Your task to perform on an android device: Search for sushi restaurants on Maps Image 0: 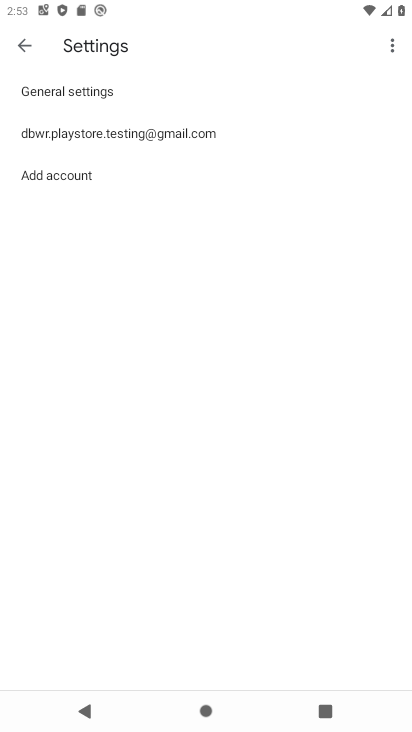
Step 0: press home button
Your task to perform on an android device: Search for sushi restaurants on Maps Image 1: 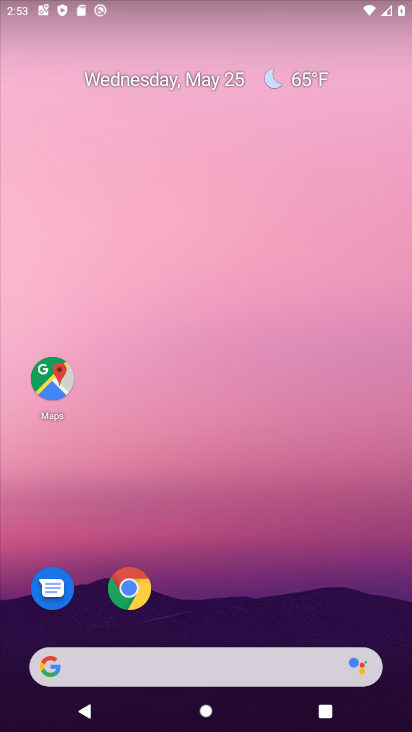
Step 1: click (55, 381)
Your task to perform on an android device: Search for sushi restaurants on Maps Image 2: 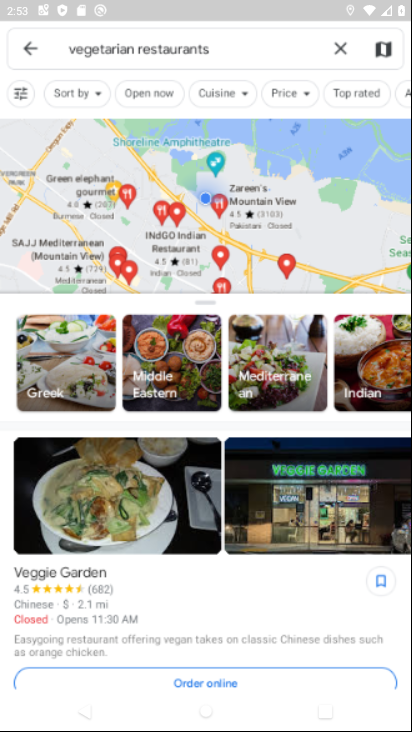
Step 2: click (344, 44)
Your task to perform on an android device: Search for sushi restaurants on Maps Image 3: 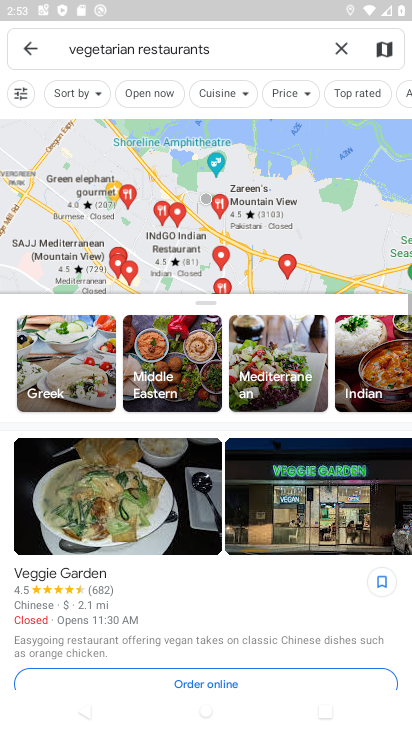
Step 3: click (345, 49)
Your task to perform on an android device: Search for sushi restaurants on Maps Image 4: 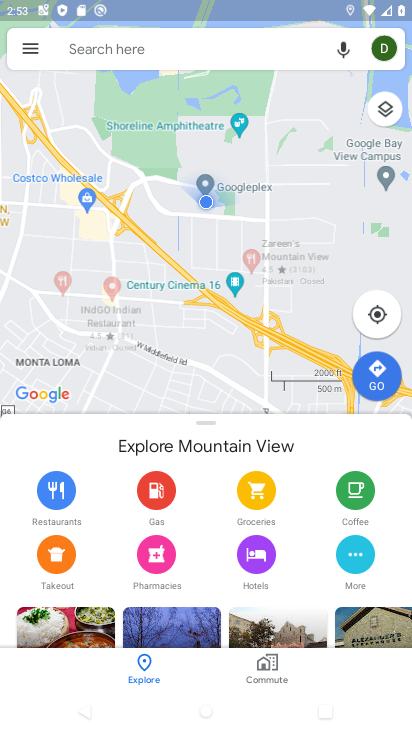
Step 4: click (344, 44)
Your task to perform on an android device: Search for sushi restaurants on Maps Image 5: 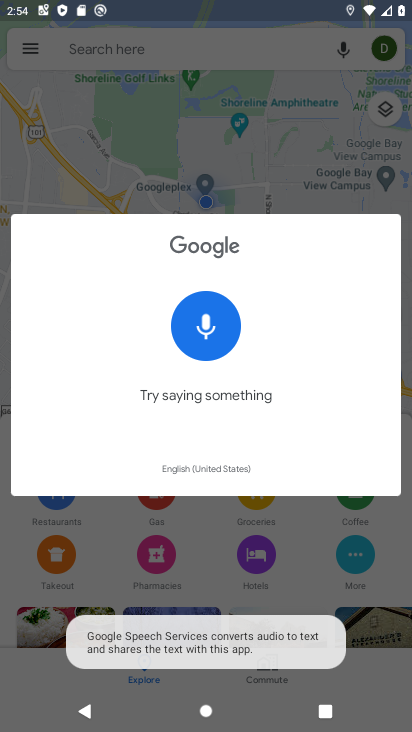
Step 5: drag from (347, 56) to (232, 56)
Your task to perform on an android device: Search for sushi restaurants on Maps Image 6: 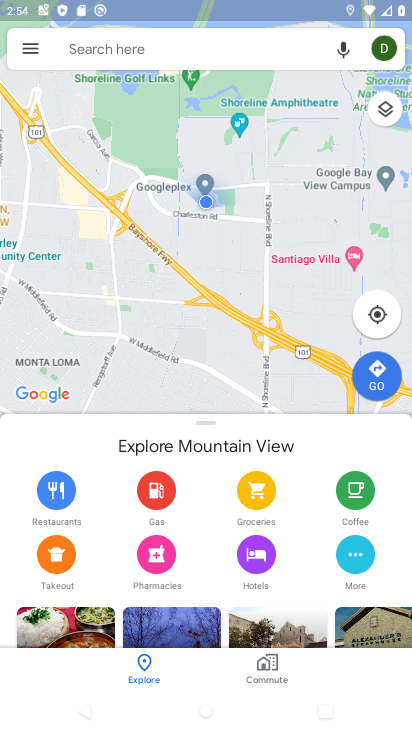
Step 6: click (139, 53)
Your task to perform on an android device: Search for sushi restaurants on Maps Image 7: 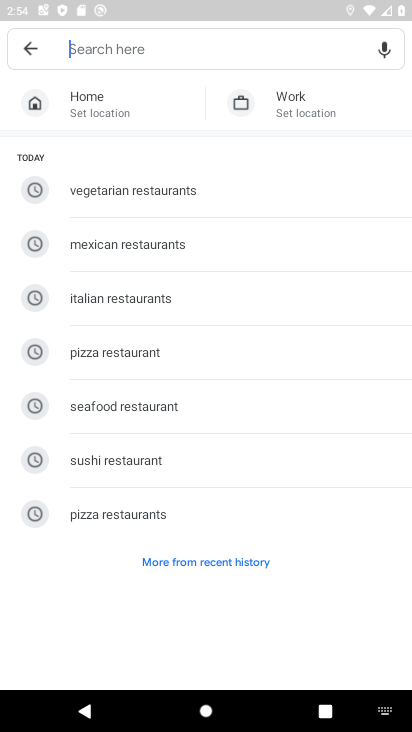
Step 7: type "sushi restaurants "
Your task to perform on an android device: Search for sushi restaurants on Maps Image 8: 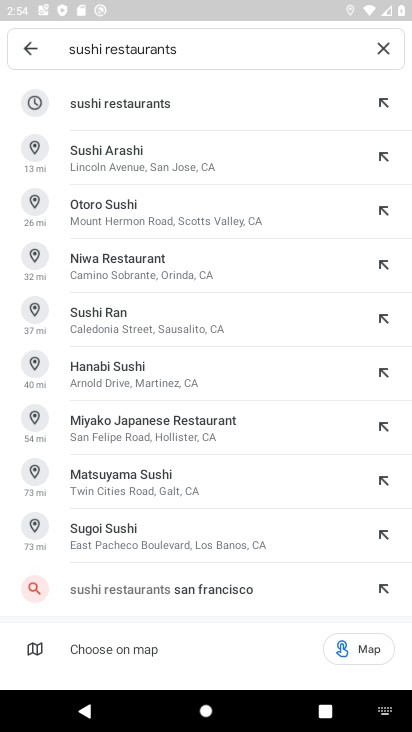
Step 8: click (168, 121)
Your task to perform on an android device: Search for sushi restaurants on Maps Image 9: 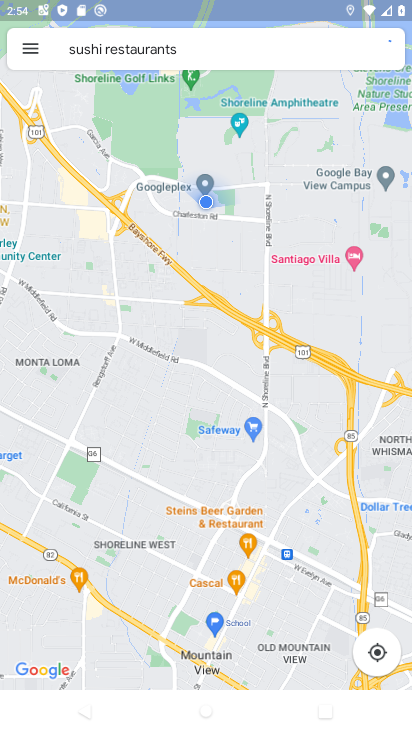
Step 9: task complete